Your task to perform on an android device: toggle wifi Image 0: 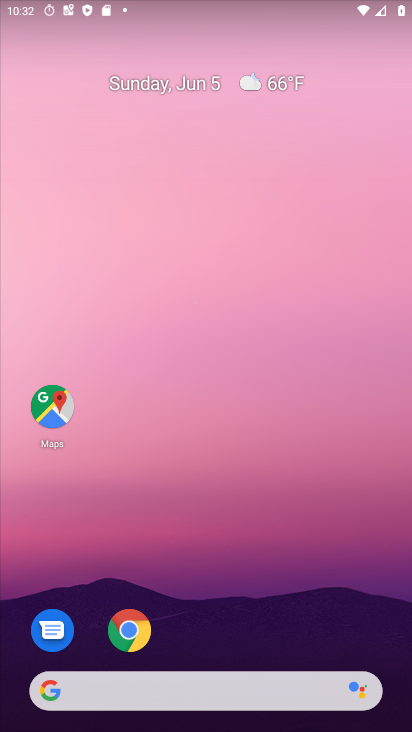
Step 0: drag from (238, 711) to (250, 93)
Your task to perform on an android device: toggle wifi Image 1: 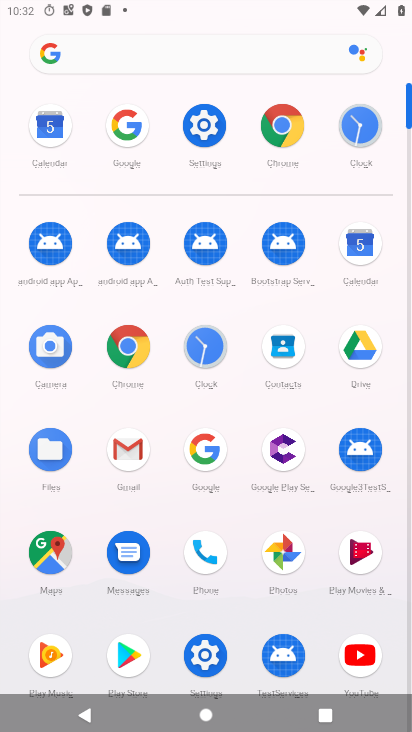
Step 1: click (203, 132)
Your task to perform on an android device: toggle wifi Image 2: 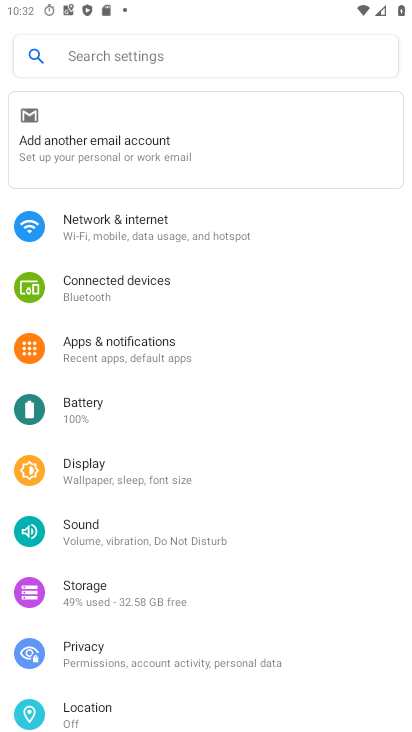
Step 2: click (112, 231)
Your task to perform on an android device: toggle wifi Image 3: 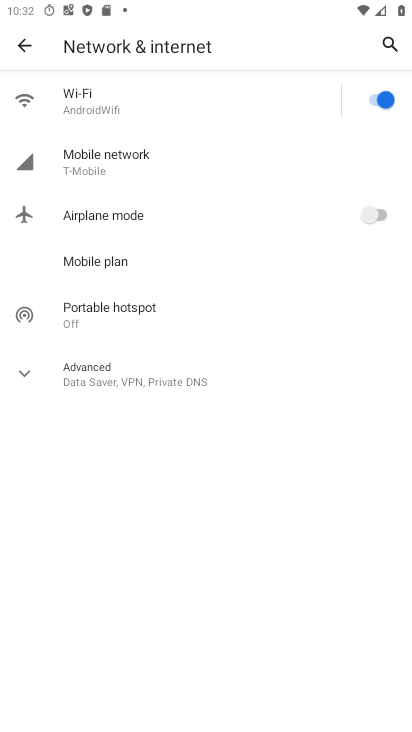
Step 3: click (376, 93)
Your task to perform on an android device: toggle wifi Image 4: 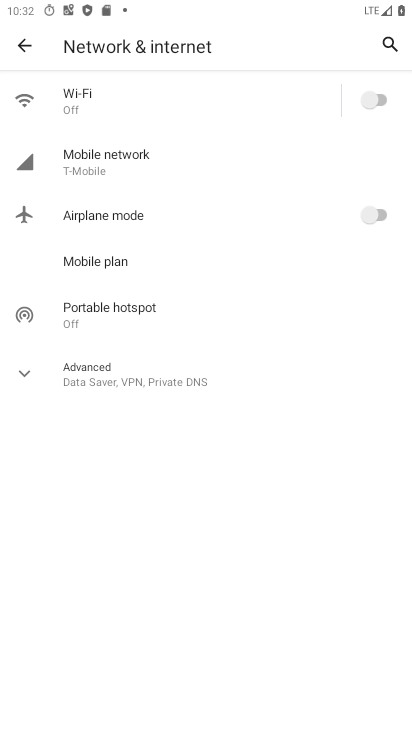
Step 4: task complete